Your task to perform on an android device: Do I have any events today? Image 0: 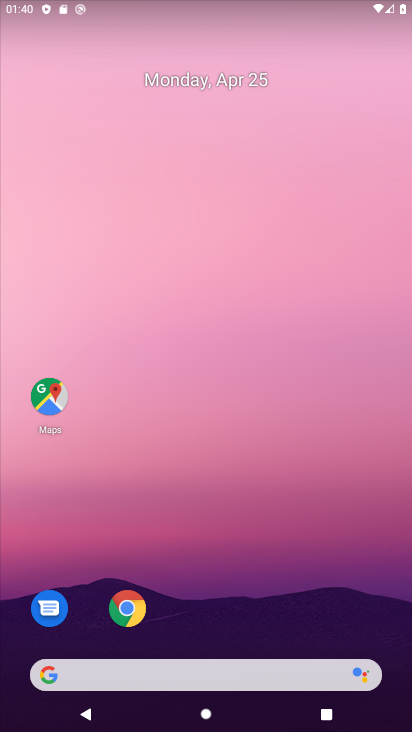
Step 0: drag from (169, 534) to (250, 65)
Your task to perform on an android device: Do I have any events today? Image 1: 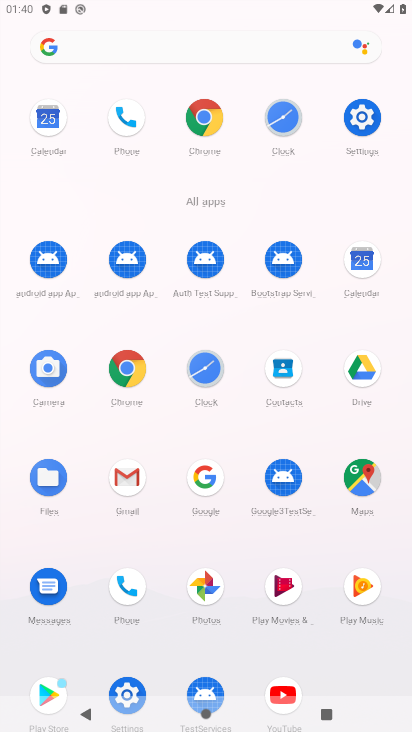
Step 1: click (363, 264)
Your task to perform on an android device: Do I have any events today? Image 2: 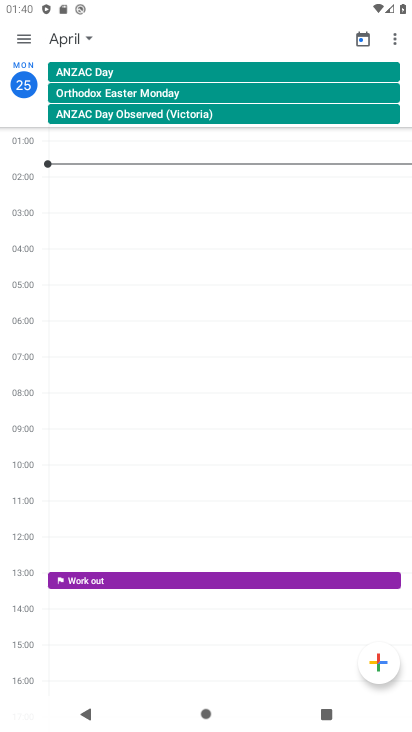
Step 2: task complete